Your task to perform on an android device: Go to sound settings Image 0: 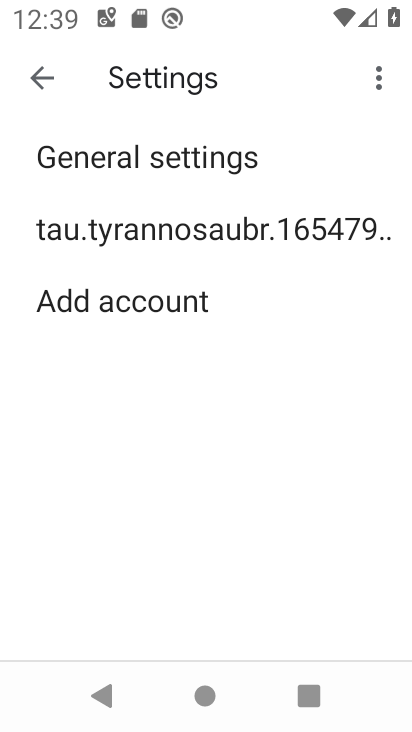
Step 0: press home button
Your task to perform on an android device: Go to sound settings Image 1: 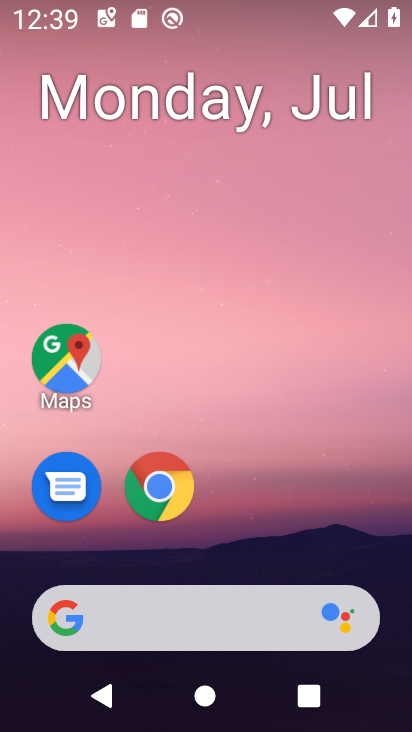
Step 1: drag from (376, 548) to (370, 89)
Your task to perform on an android device: Go to sound settings Image 2: 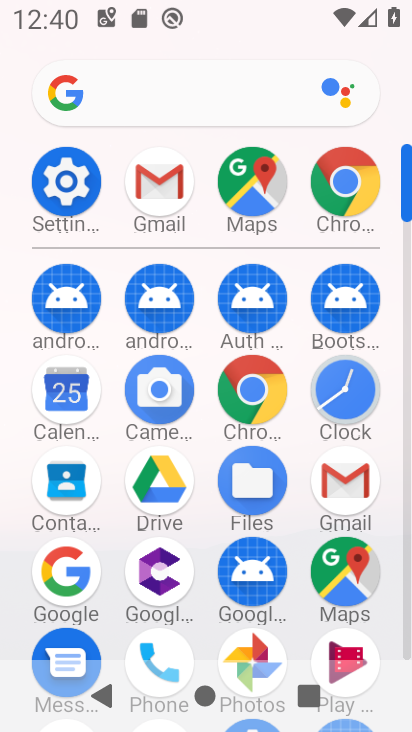
Step 2: click (68, 196)
Your task to perform on an android device: Go to sound settings Image 3: 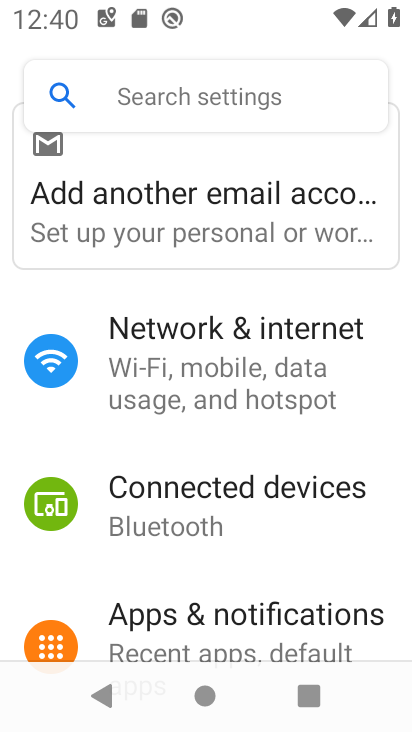
Step 3: drag from (373, 433) to (373, 349)
Your task to perform on an android device: Go to sound settings Image 4: 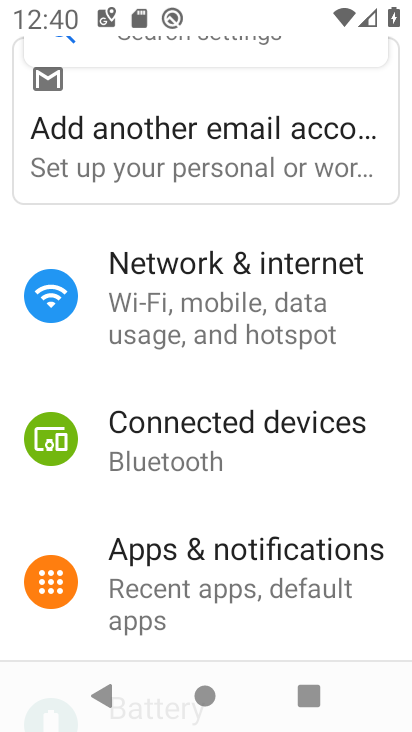
Step 4: drag from (352, 525) to (351, 416)
Your task to perform on an android device: Go to sound settings Image 5: 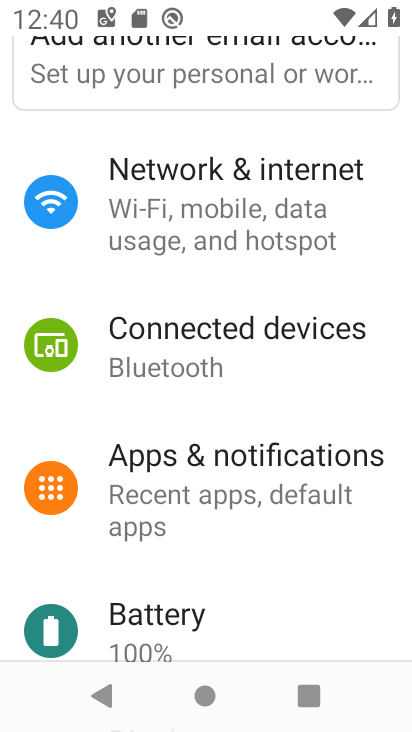
Step 5: drag from (336, 545) to (336, 453)
Your task to perform on an android device: Go to sound settings Image 6: 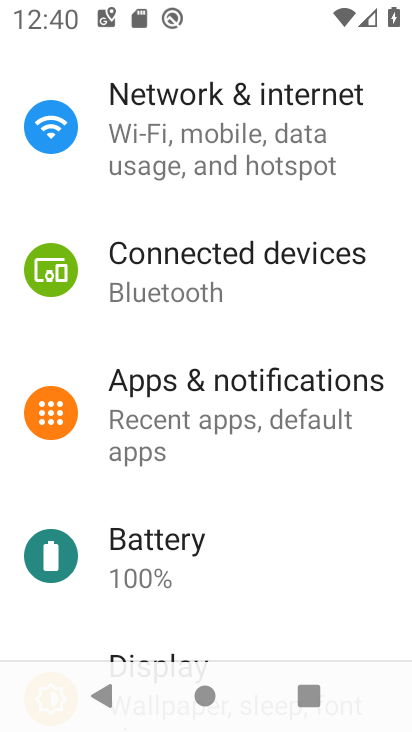
Step 6: drag from (330, 569) to (330, 444)
Your task to perform on an android device: Go to sound settings Image 7: 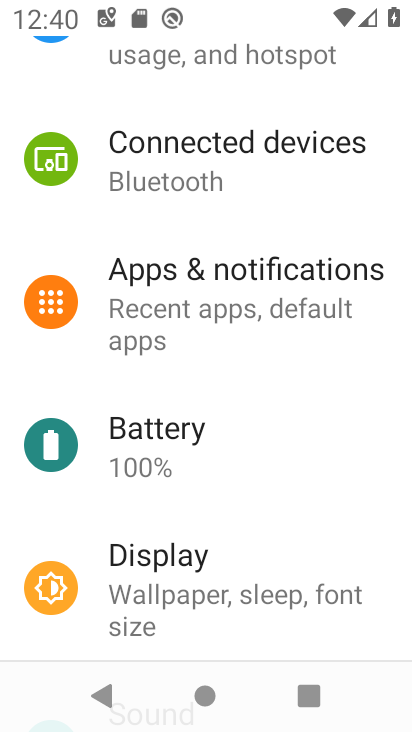
Step 7: drag from (338, 506) to (339, 383)
Your task to perform on an android device: Go to sound settings Image 8: 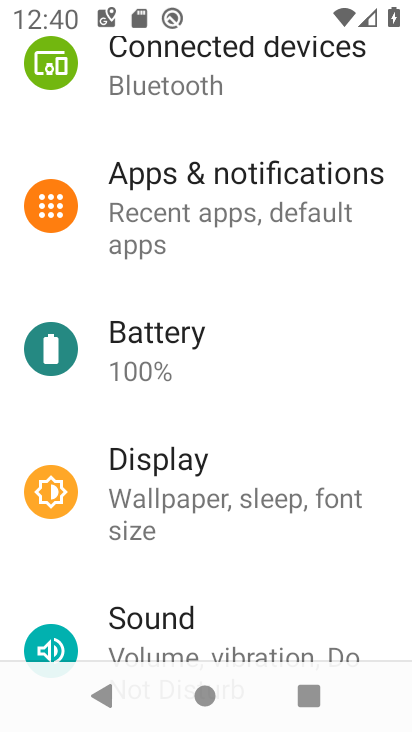
Step 8: drag from (319, 537) to (335, 410)
Your task to perform on an android device: Go to sound settings Image 9: 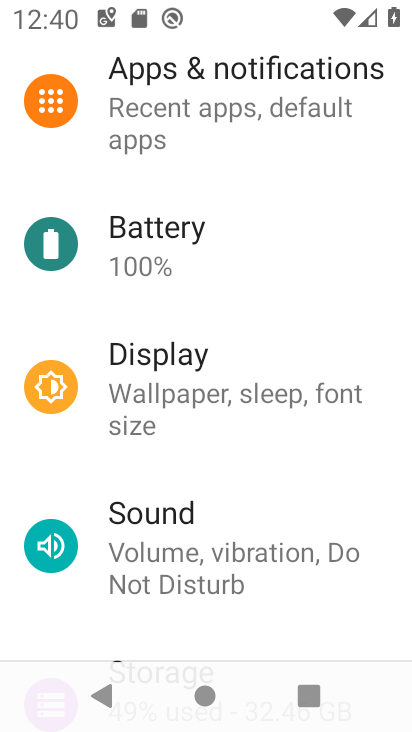
Step 9: drag from (329, 598) to (342, 460)
Your task to perform on an android device: Go to sound settings Image 10: 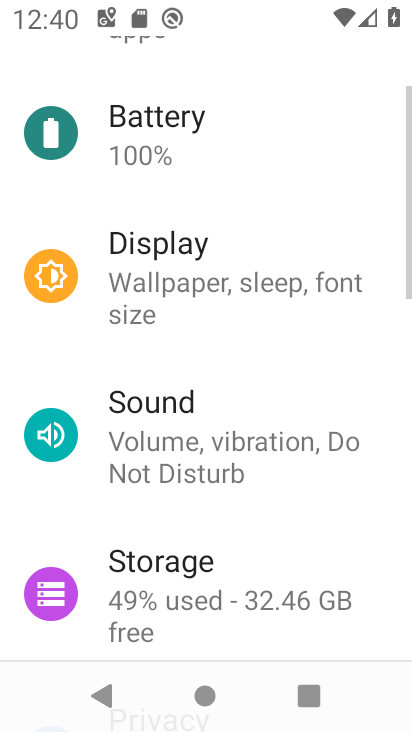
Step 10: click (342, 460)
Your task to perform on an android device: Go to sound settings Image 11: 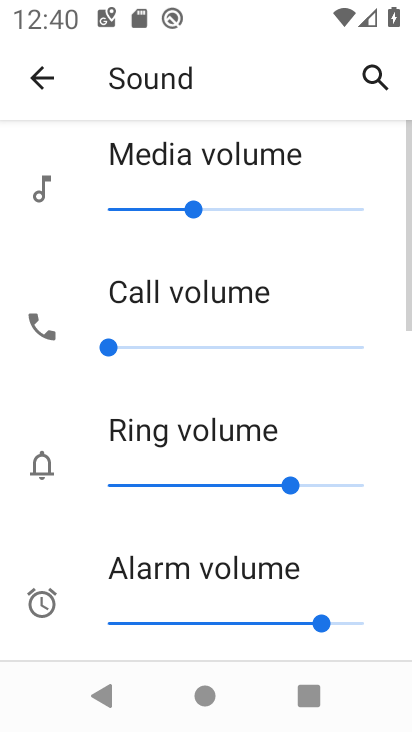
Step 11: task complete